Your task to perform on an android device: see sites visited before in the chrome app Image 0: 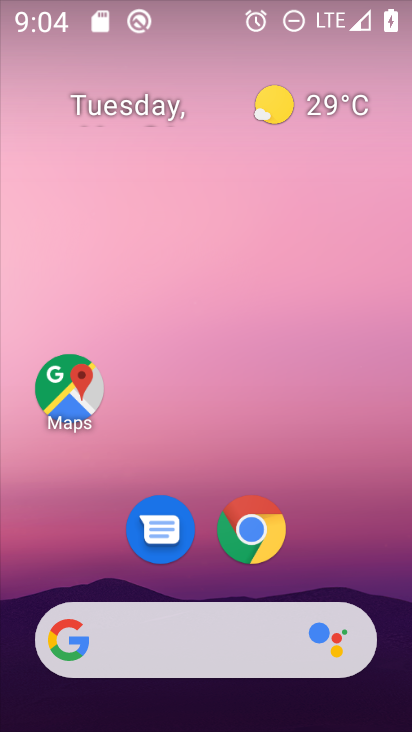
Step 0: drag from (396, 644) to (297, 59)
Your task to perform on an android device: see sites visited before in the chrome app Image 1: 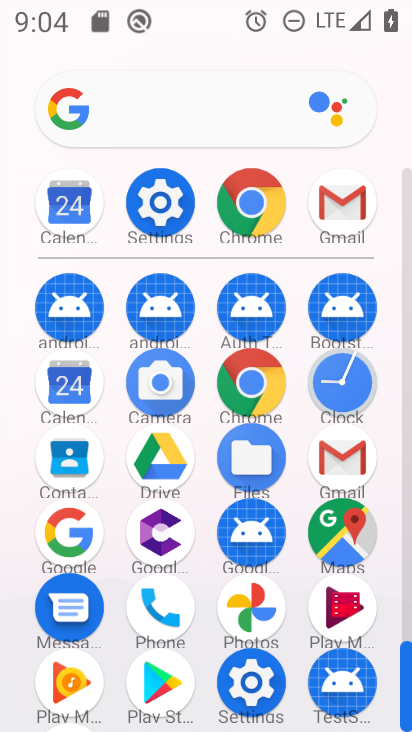
Step 1: click (262, 222)
Your task to perform on an android device: see sites visited before in the chrome app Image 2: 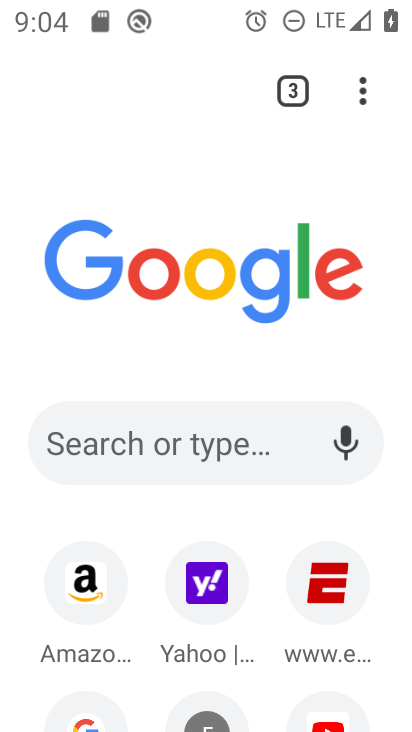
Step 2: click (359, 81)
Your task to perform on an android device: see sites visited before in the chrome app Image 3: 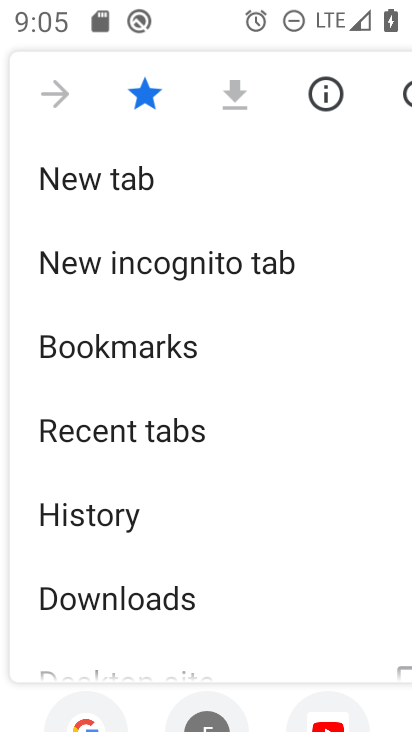
Step 3: click (125, 519)
Your task to perform on an android device: see sites visited before in the chrome app Image 4: 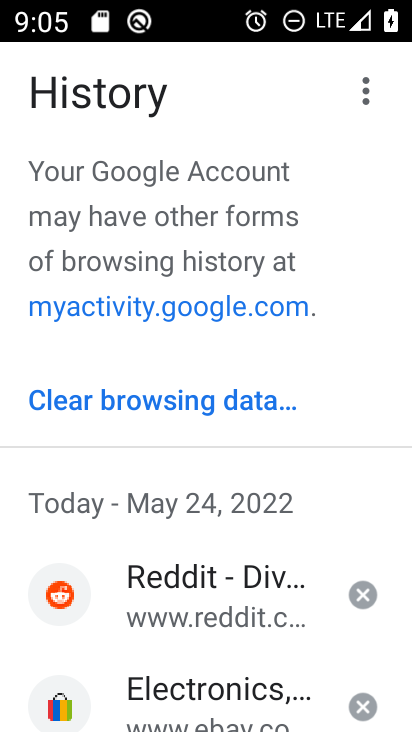
Step 4: click (165, 570)
Your task to perform on an android device: see sites visited before in the chrome app Image 5: 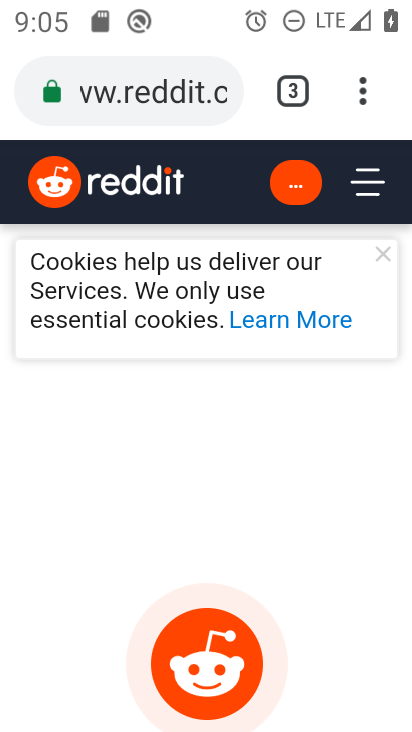
Step 5: task complete